Your task to perform on an android device: check data usage Image 0: 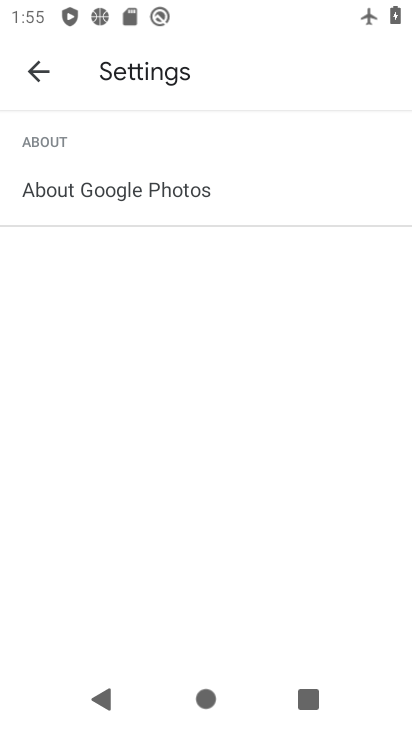
Step 0: press home button
Your task to perform on an android device: check data usage Image 1: 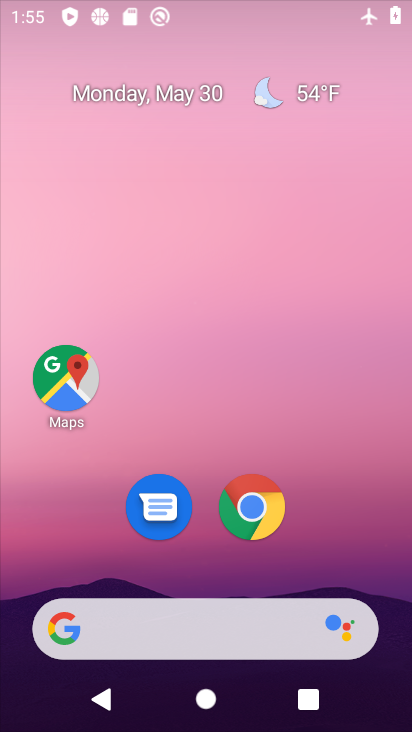
Step 1: drag from (367, 652) to (239, 44)
Your task to perform on an android device: check data usage Image 2: 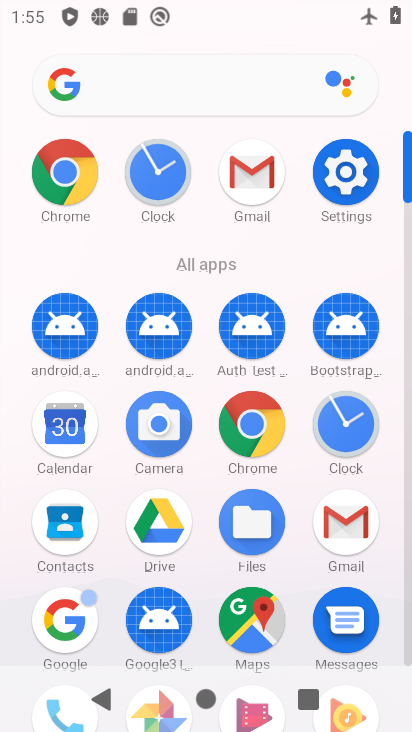
Step 2: click (342, 186)
Your task to perform on an android device: check data usage Image 3: 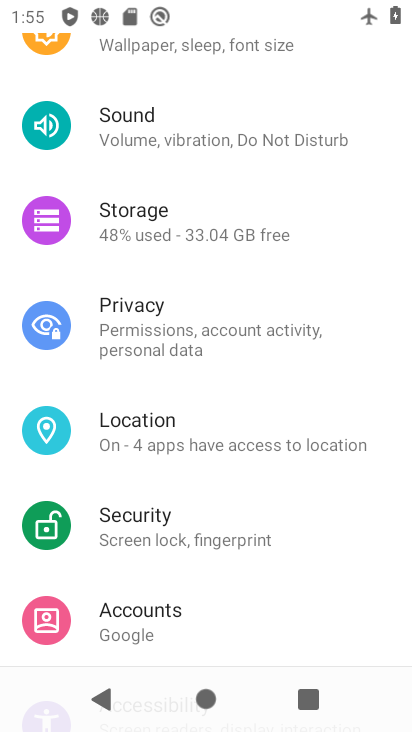
Step 3: drag from (116, 180) to (185, 623)
Your task to perform on an android device: check data usage Image 4: 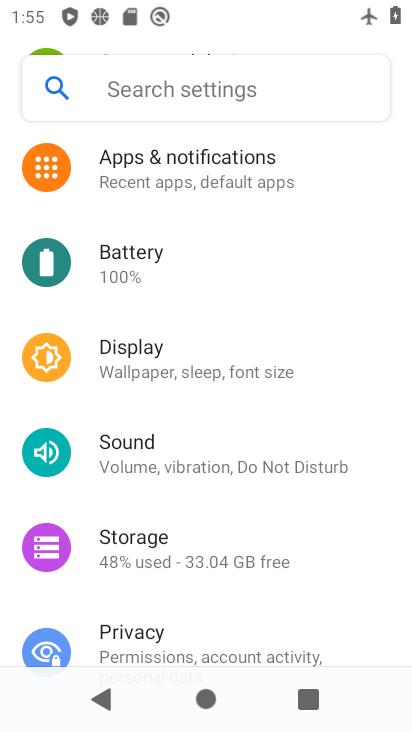
Step 4: drag from (196, 179) to (290, 612)
Your task to perform on an android device: check data usage Image 5: 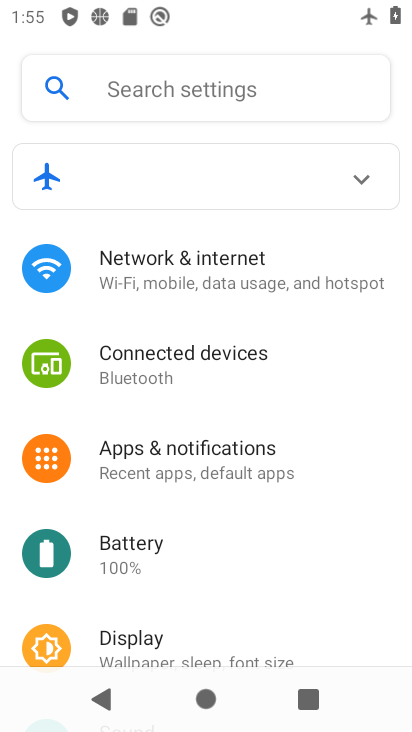
Step 5: click (214, 308)
Your task to perform on an android device: check data usage Image 6: 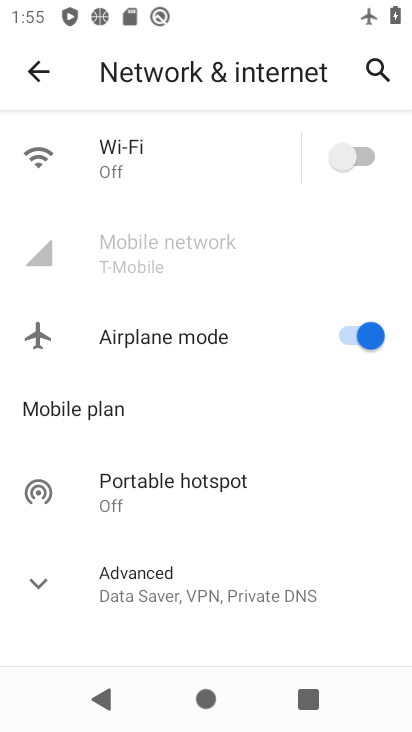
Step 6: task complete